Your task to perform on an android device: turn off airplane mode Image 0: 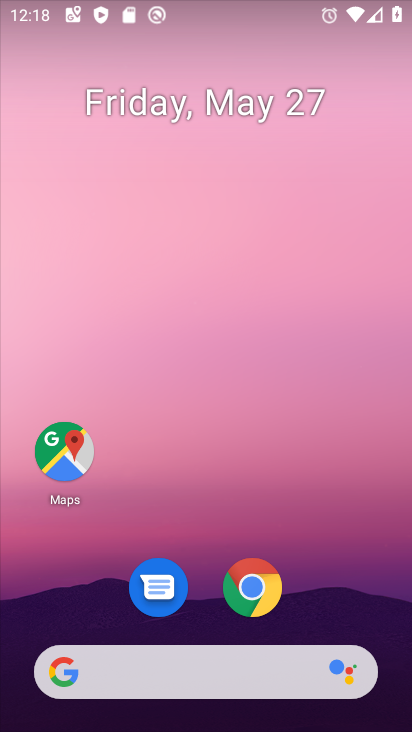
Step 0: press home button
Your task to perform on an android device: turn off airplane mode Image 1: 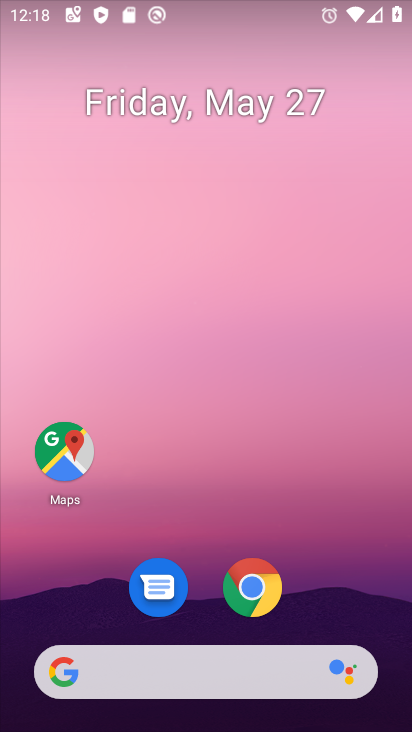
Step 1: drag from (249, 713) to (387, 11)
Your task to perform on an android device: turn off airplane mode Image 2: 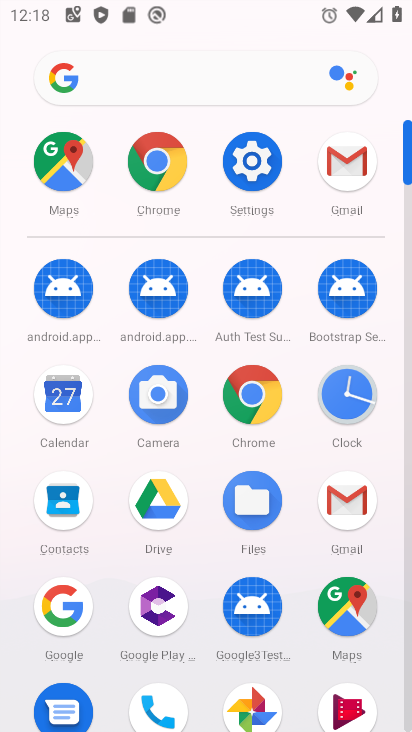
Step 2: click (255, 152)
Your task to perform on an android device: turn off airplane mode Image 3: 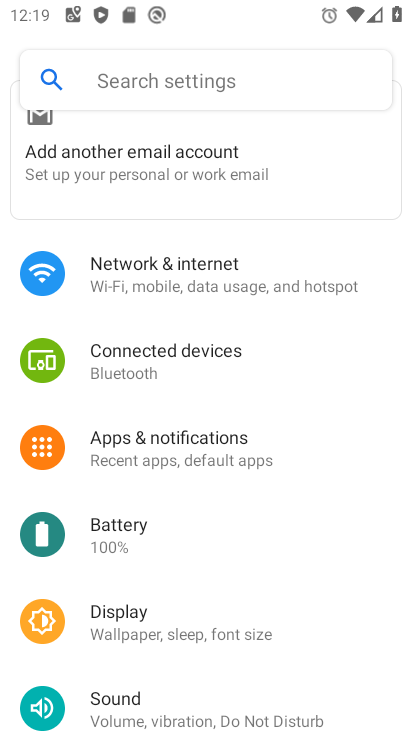
Step 3: click (191, 303)
Your task to perform on an android device: turn off airplane mode Image 4: 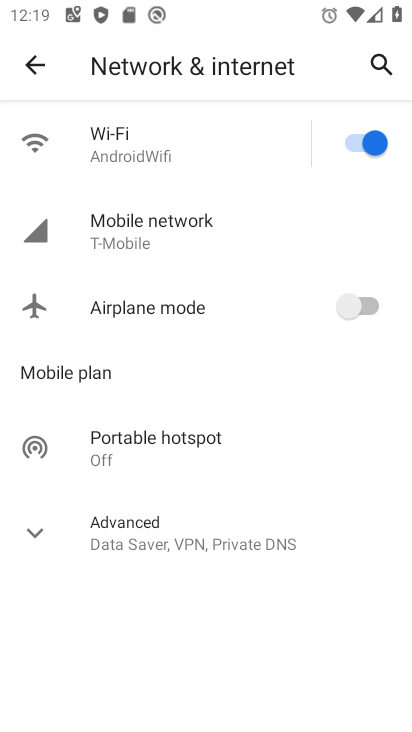
Step 4: click (371, 316)
Your task to perform on an android device: turn off airplane mode Image 5: 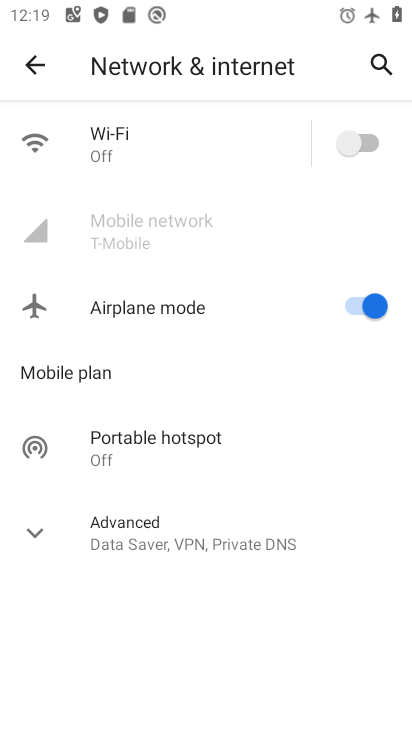
Step 5: click (362, 311)
Your task to perform on an android device: turn off airplane mode Image 6: 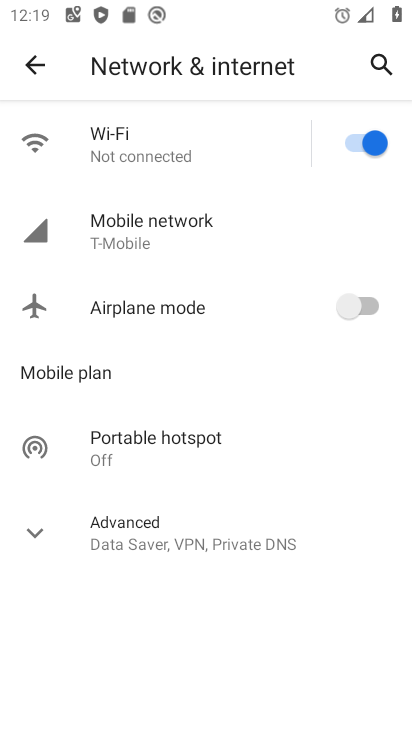
Step 6: task complete